Your task to perform on an android device: change text size in settings app Image 0: 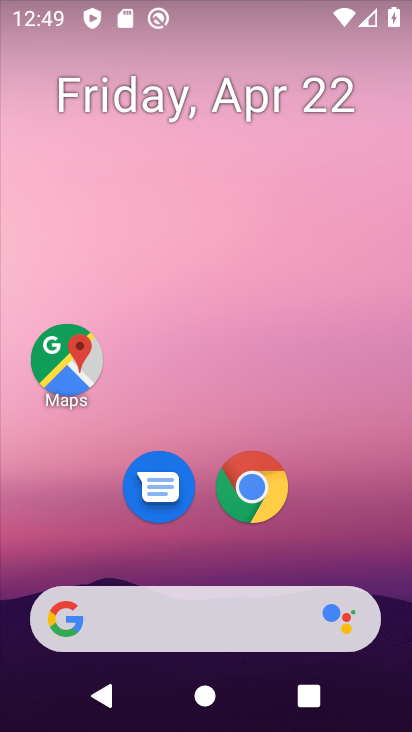
Step 0: drag from (212, 553) to (254, 97)
Your task to perform on an android device: change text size in settings app Image 1: 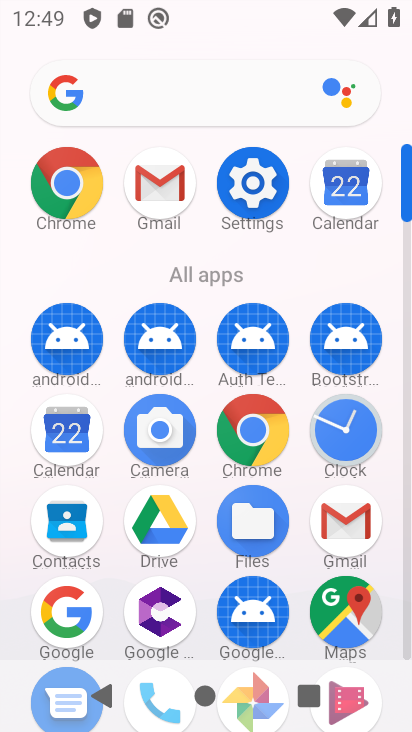
Step 1: click (251, 183)
Your task to perform on an android device: change text size in settings app Image 2: 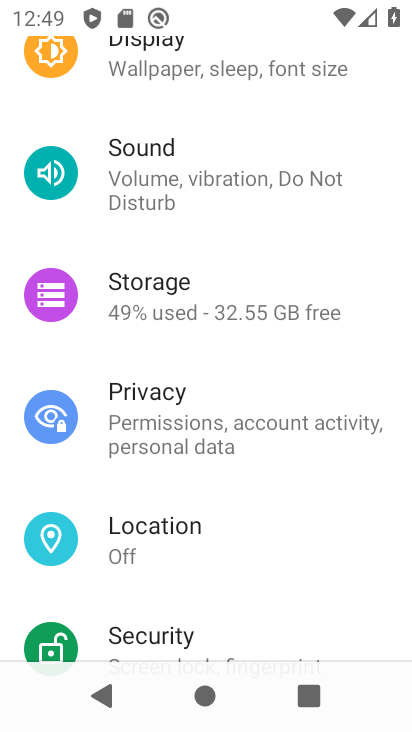
Step 2: drag from (263, 268) to (276, 485)
Your task to perform on an android device: change text size in settings app Image 3: 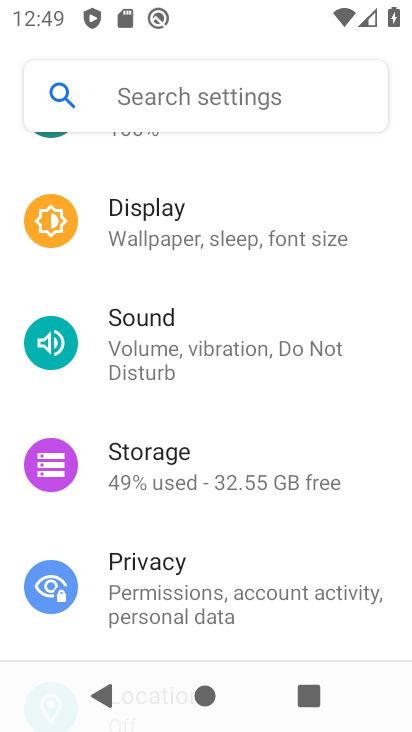
Step 3: click (220, 243)
Your task to perform on an android device: change text size in settings app Image 4: 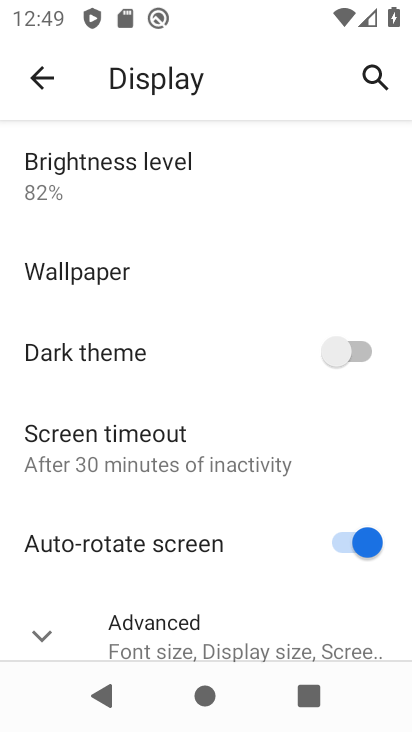
Step 4: drag from (197, 593) to (221, 371)
Your task to perform on an android device: change text size in settings app Image 5: 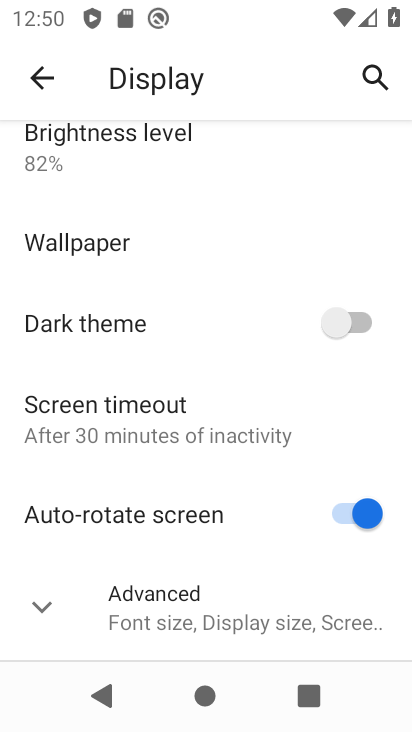
Step 5: click (183, 594)
Your task to perform on an android device: change text size in settings app Image 6: 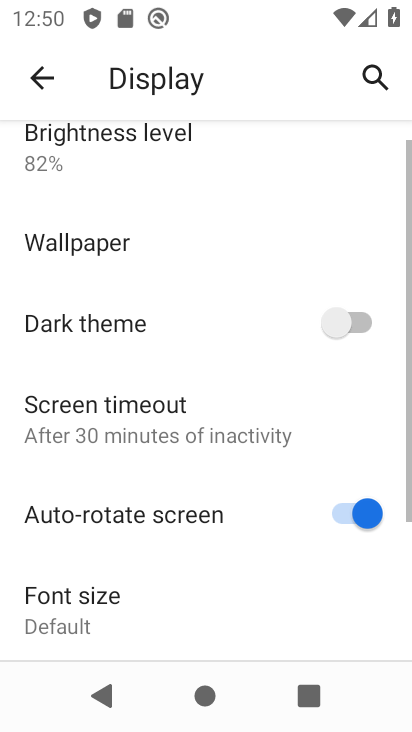
Step 6: drag from (180, 631) to (248, 332)
Your task to perform on an android device: change text size in settings app Image 7: 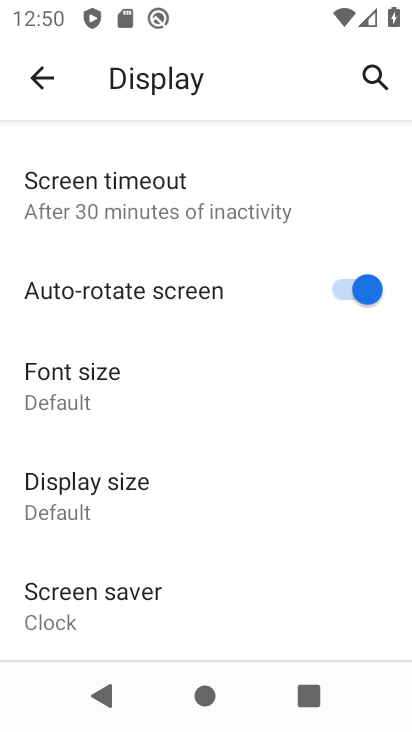
Step 7: drag from (180, 568) to (180, 295)
Your task to perform on an android device: change text size in settings app Image 8: 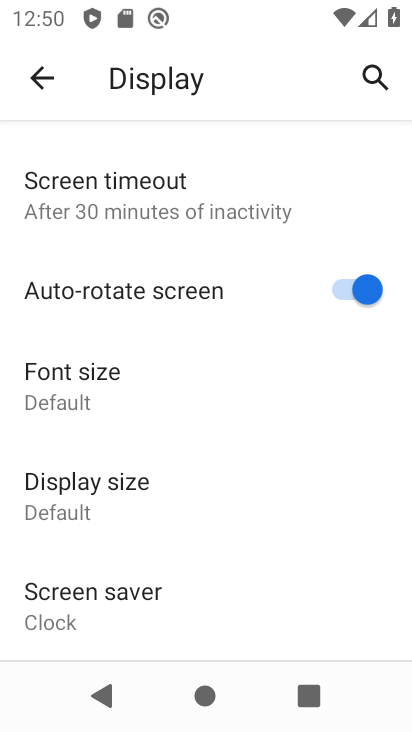
Step 8: click (127, 371)
Your task to perform on an android device: change text size in settings app Image 9: 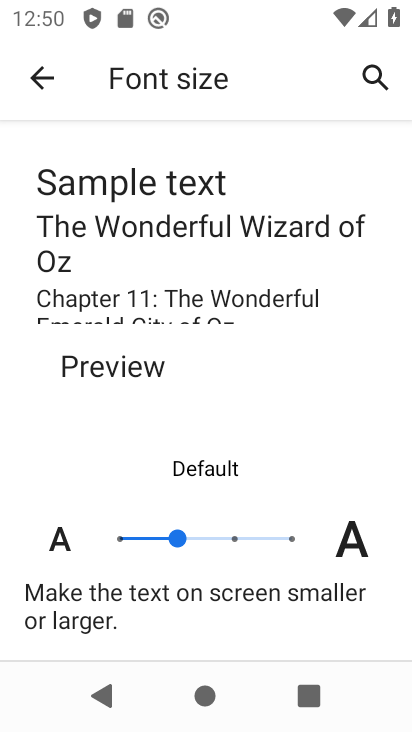
Step 9: click (127, 538)
Your task to perform on an android device: change text size in settings app Image 10: 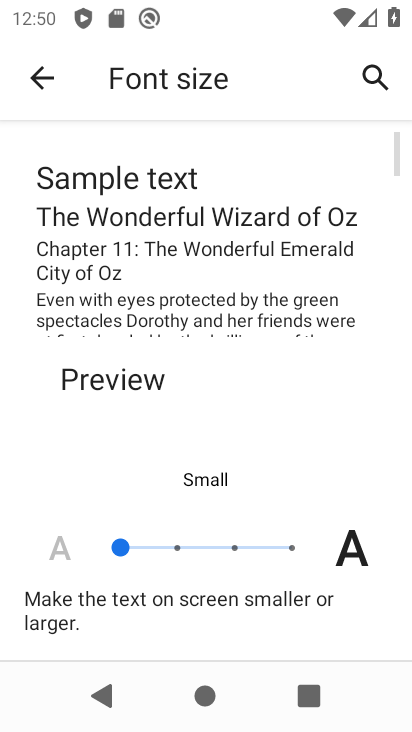
Step 10: task complete